Your task to perform on an android device: Go to notification settings Image 0: 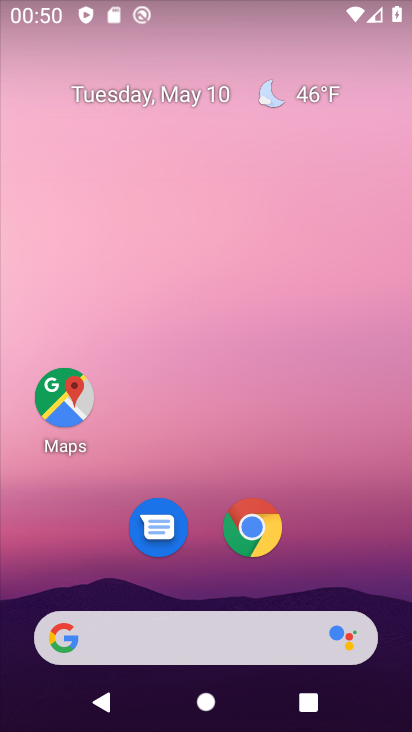
Step 0: drag from (321, 536) to (134, 166)
Your task to perform on an android device: Go to notification settings Image 1: 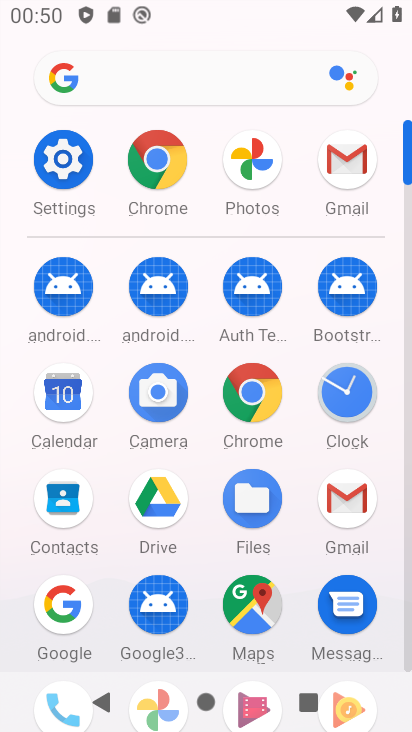
Step 1: click (69, 152)
Your task to perform on an android device: Go to notification settings Image 2: 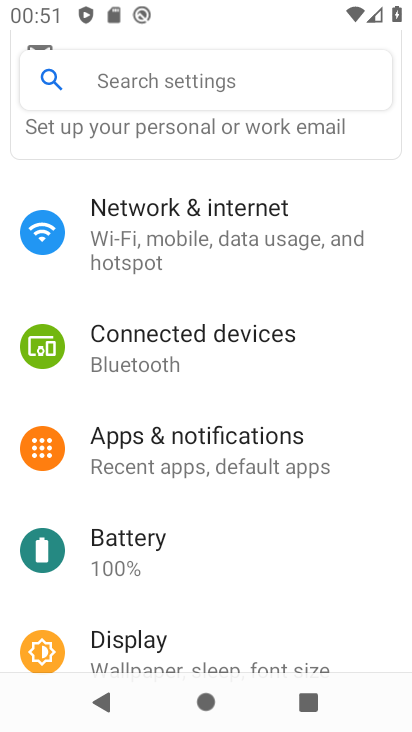
Step 2: click (173, 453)
Your task to perform on an android device: Go to notification settings Image 3: 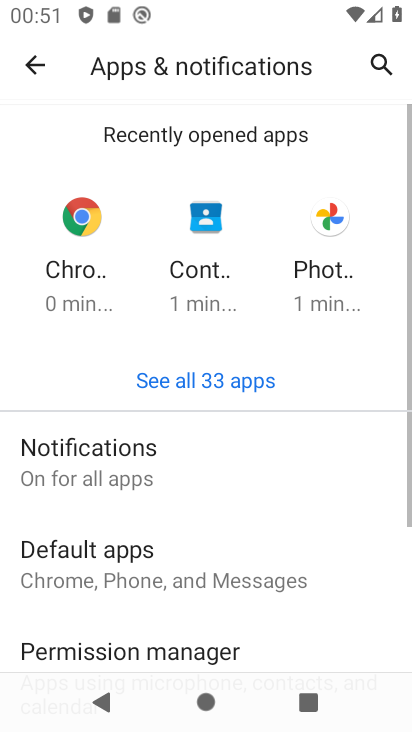
Step 3: click (121, 474)
Your task to perform on an android device: Go to notification settings Image 4: 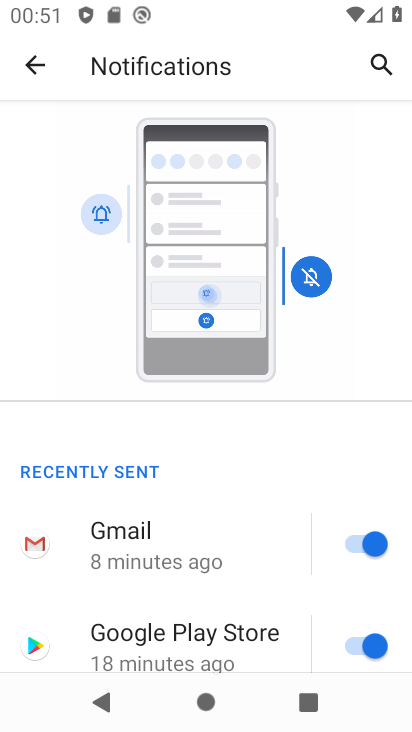
Step 4: task complete